Your task to perform on an android device: empty trash in the gmail app Image 0: 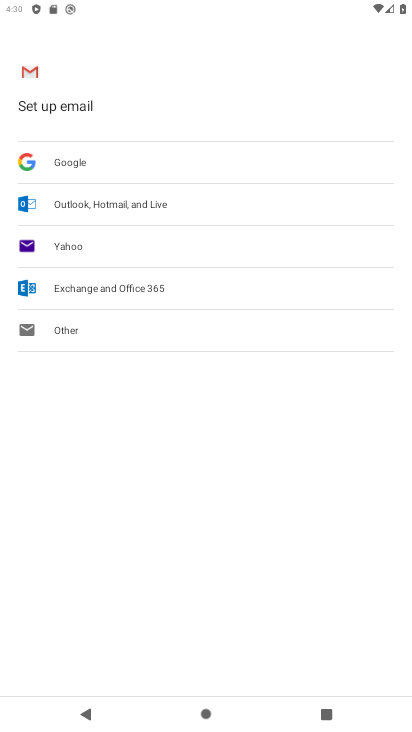
Step 0: press home button
Your task to perform on an android device: empty trash in the gmail app Image 1: 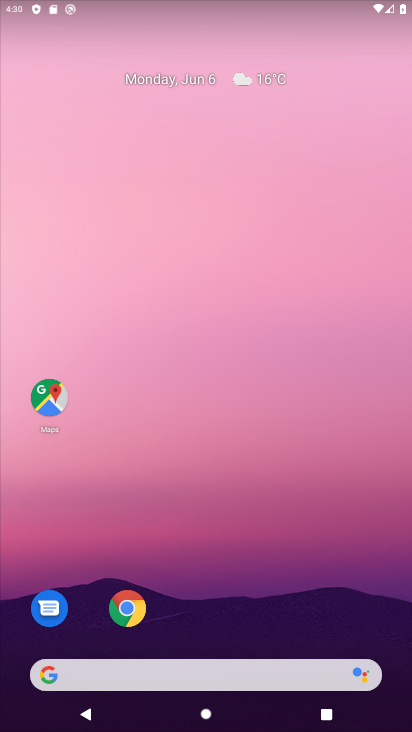
Step 1: drag from (191, 703) to (230, 158)
Your task to perform on an android device: empty trash in the gmail app Image 2: 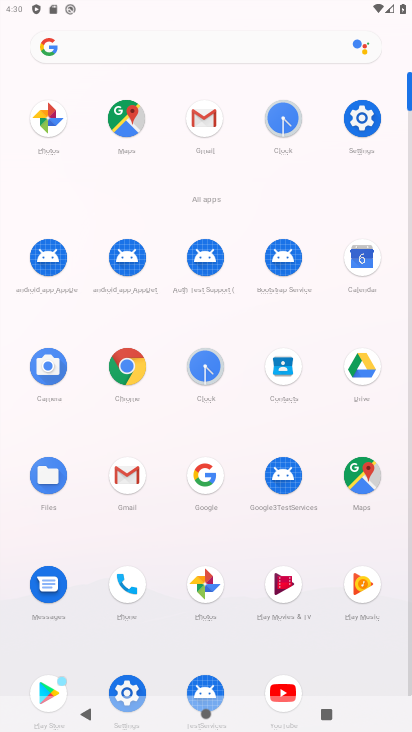
Step 2: drag from (146, 682) to (233, 331)
Your task to perform on an android device: empty trash in the gmail app Image 3: 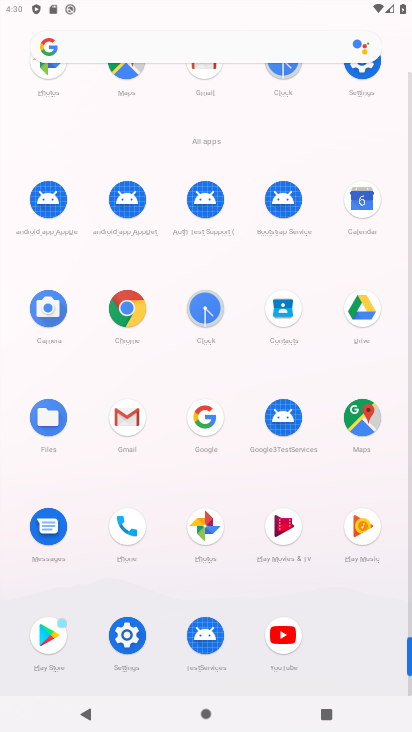
Step 3: click (120, 419)
Your task to perform on an android device: empty trash in the gmail app Image 4: 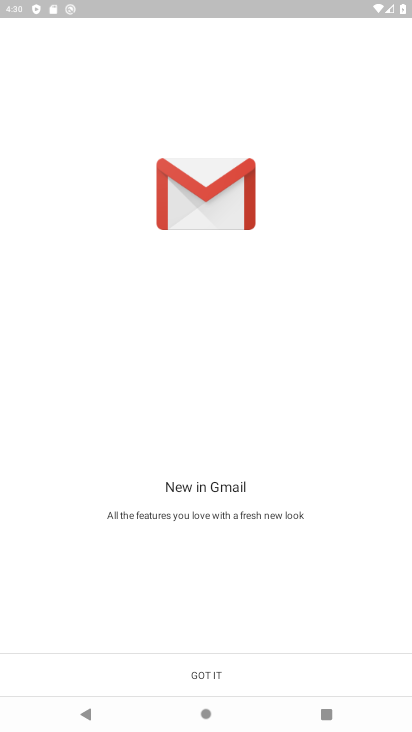
Step 4: click (254, 679)
Your task to perform on an android device: empty trash in the gmail app Image 5: 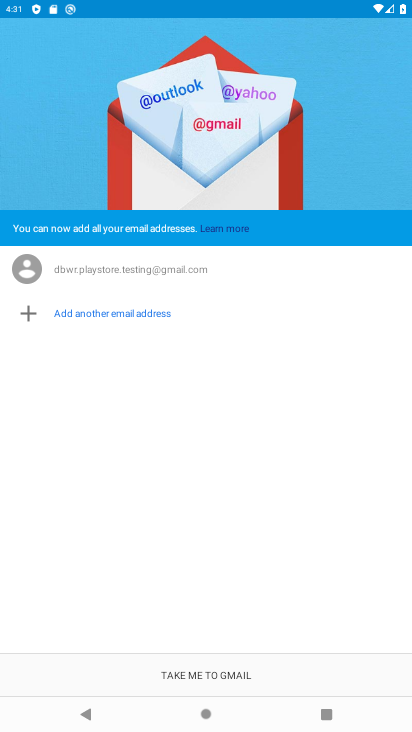
Step 5: click (219, 664)
Your task to perform on an android device: empty trash in the gmail app Image 6: 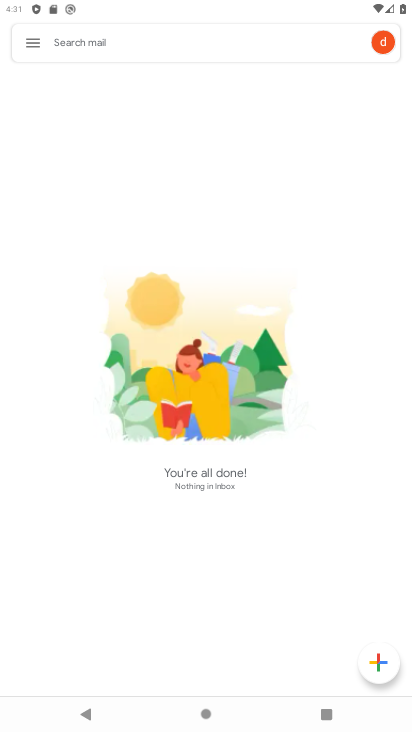
Step 6: click (43, 38)
Your task to perform on an android device: empty trash in the gmail app Image 7: 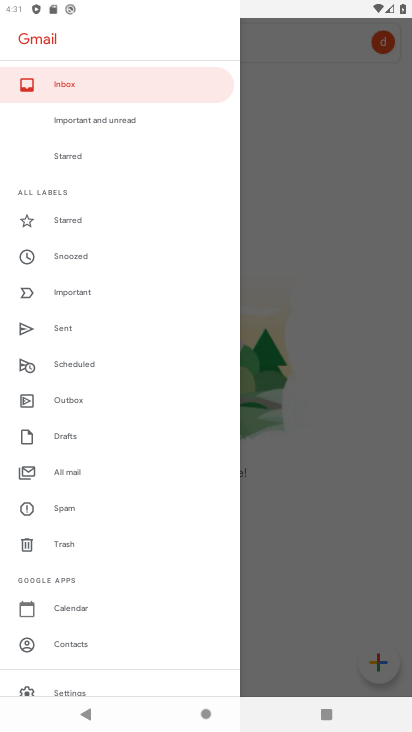
Step 7: click (88, 549)
Your task to perform on an android device: empty trash in the gmail app Image 8: 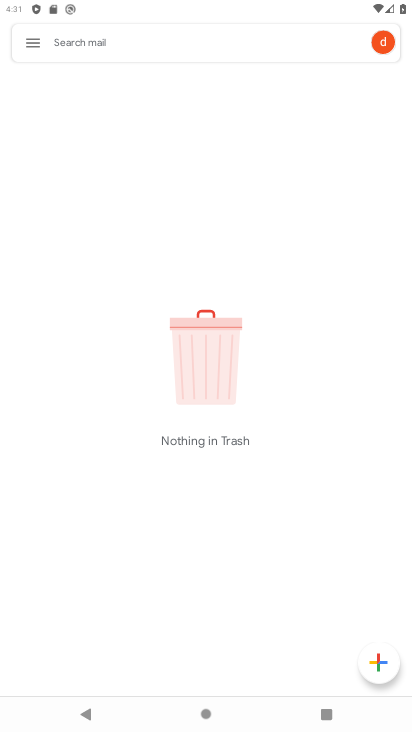
Step 8: task complete